Your task to perform on an android device: What's the news about the US? Image 0: 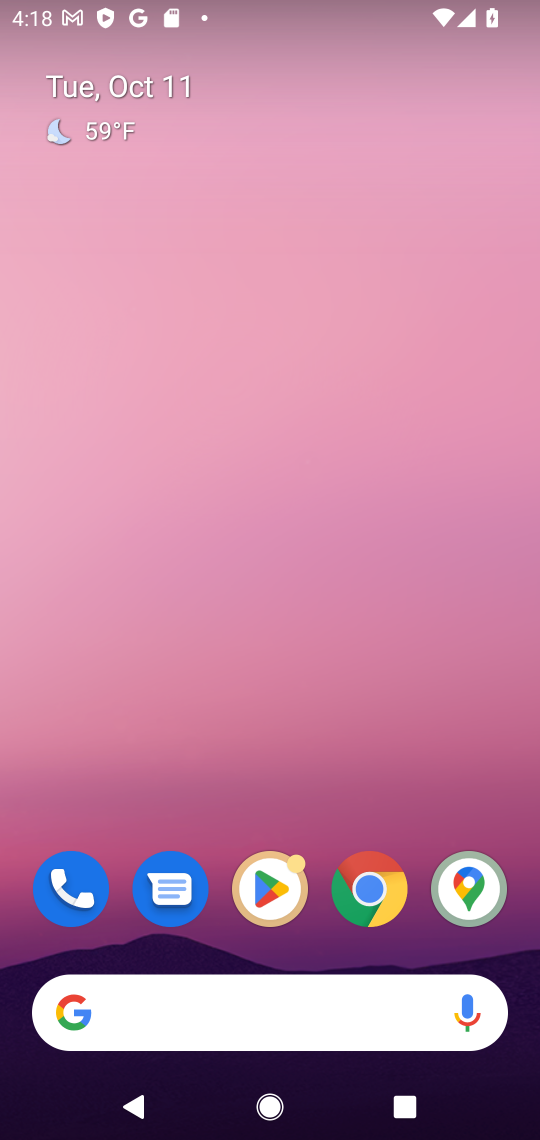
Step 0: drag from (185, 1033) to (223, 419)
Your task to perform on an android device: What's the news about the US? Image 1: 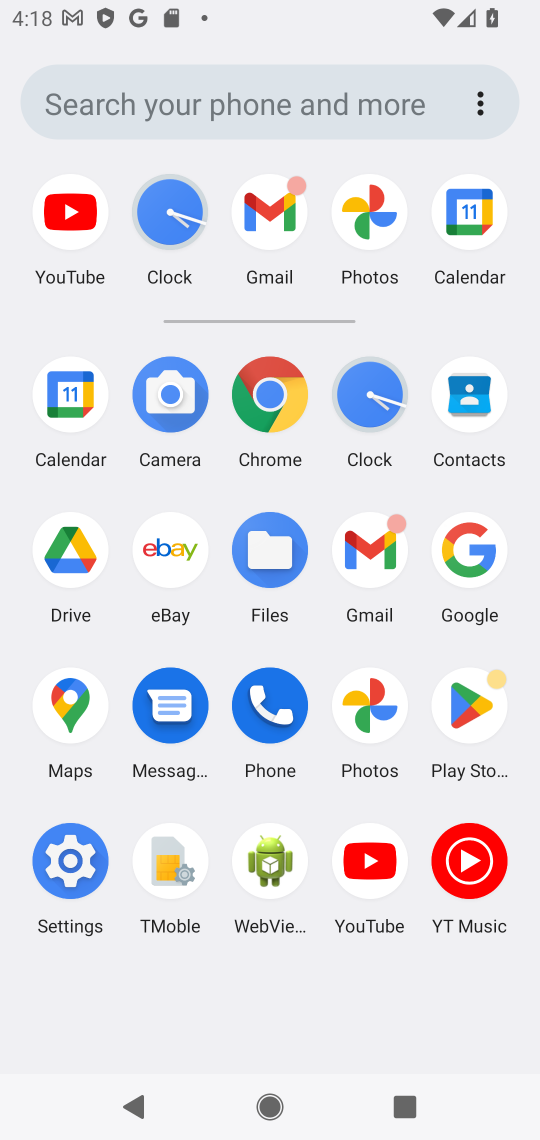
Step 1: click (467, 550)
Your task to perform on an android device: What's the news about the US? Image 2: 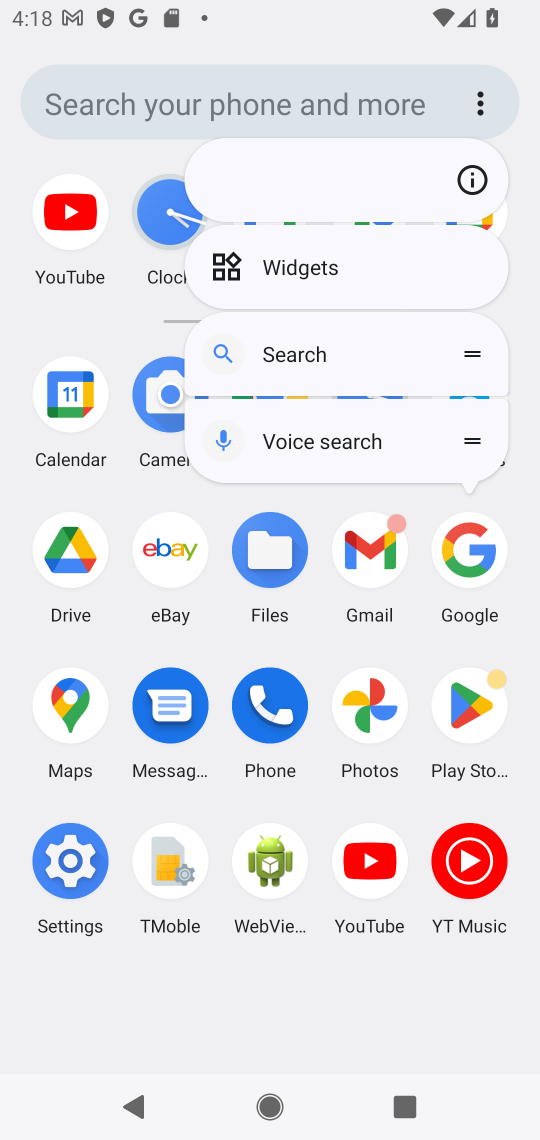
Step 2: click (467, 550)
Your task to perform on an android device: What's the news about the US? Image 3: 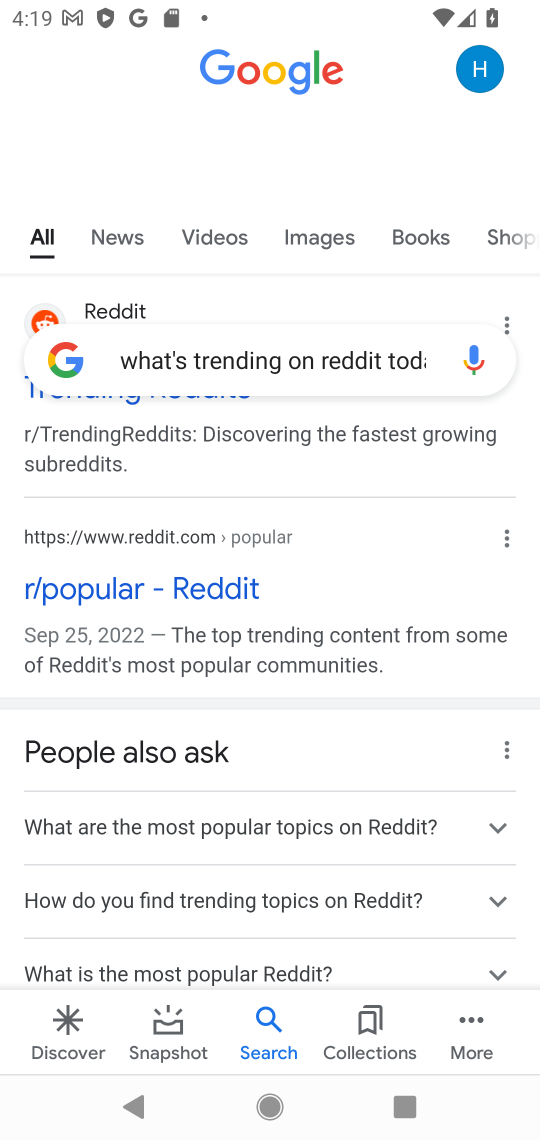
Step 3: click (313, 357)
Your task to perform on an android device: What's the news about the US? Image 4: 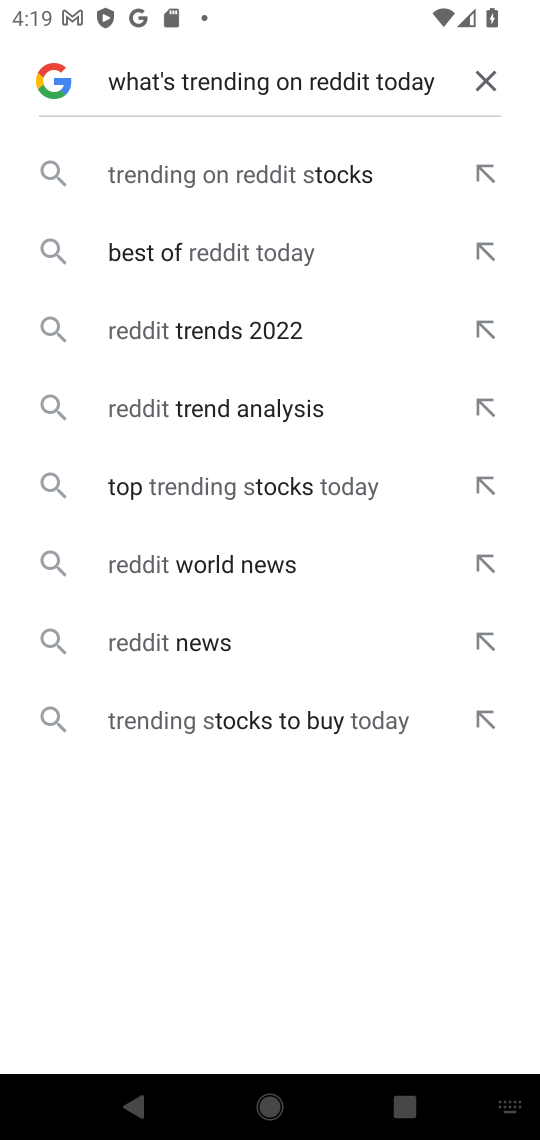
Step 4: click (477, 84)
Your task to perform on an android device: What's the news about the US? Image 5: 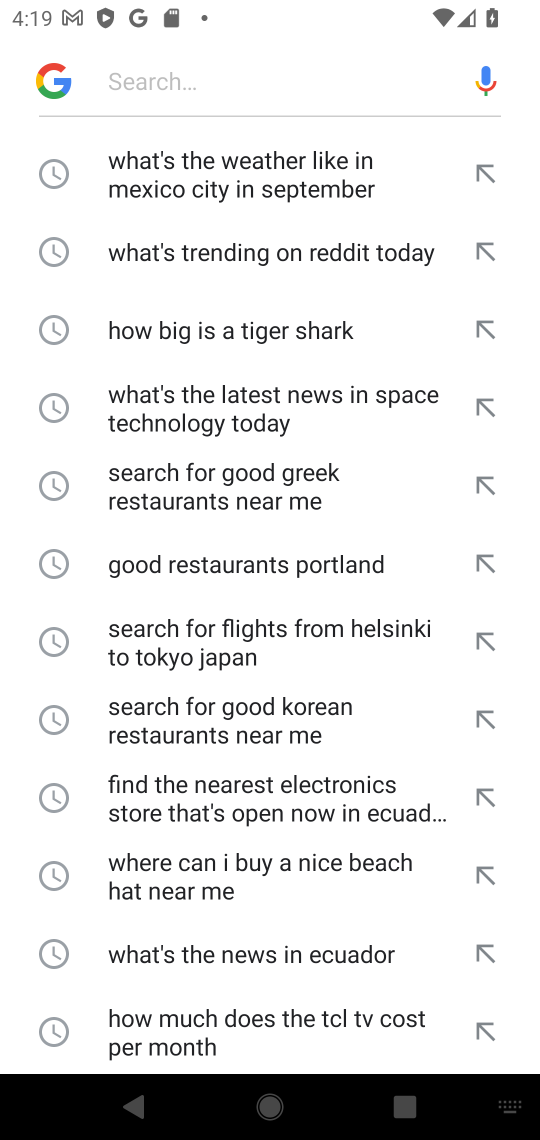
Step 5: click (379, 68)
Your task to perform on an android device: What's the news about the US? Image 6: 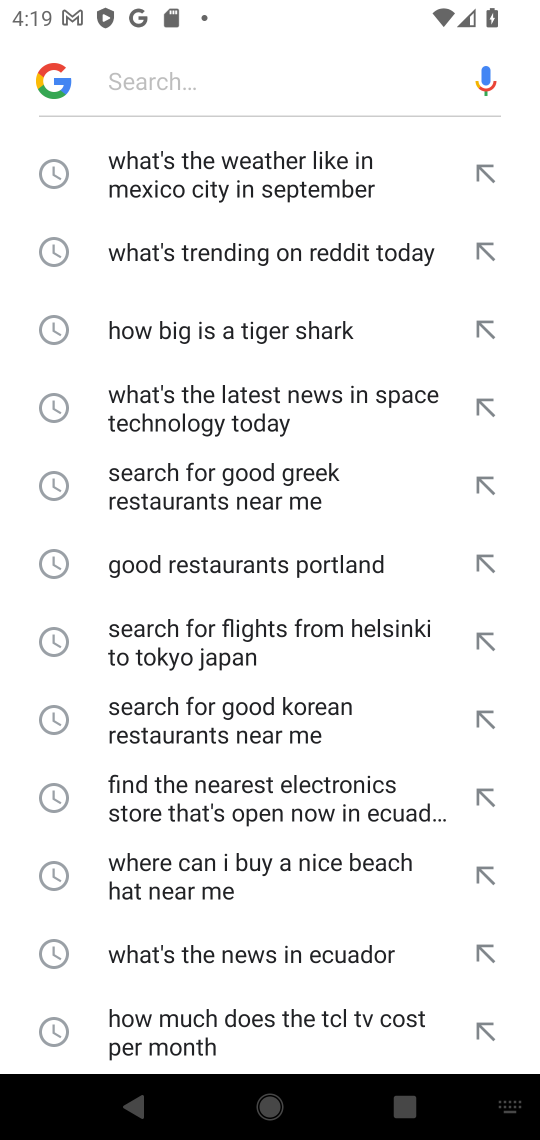
Step 6: type "What's the news about the US? "
Your task to perform on an android device: What's the news about the US? Image 7: 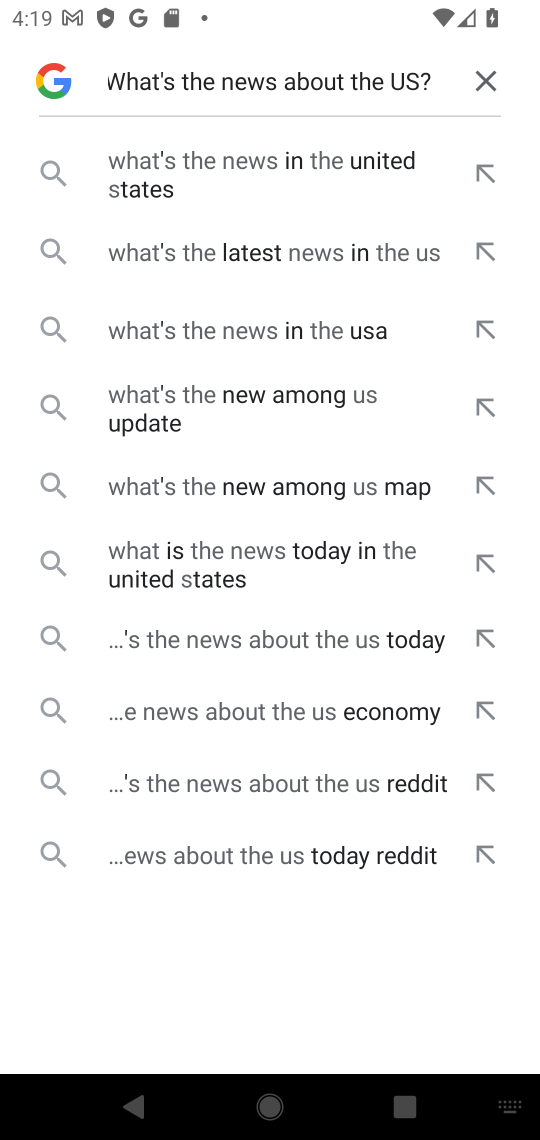
Step 7: click (282, 174)
Your task to perform on an android device: What's the news about the US? Image 8: 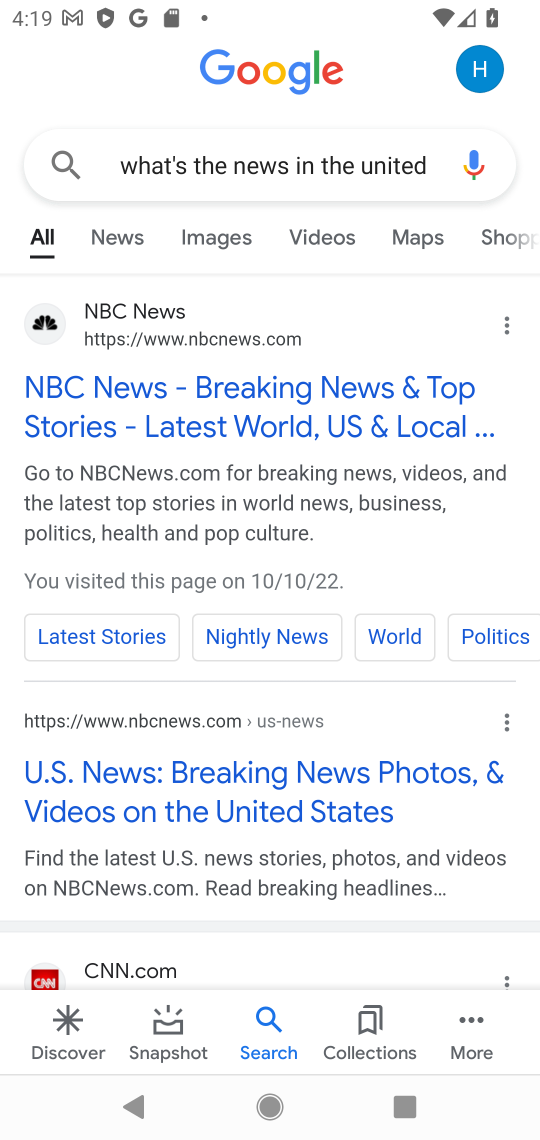
Step 8: click (240, 383)
Your task to perform on an android device: What's the news about the US? Image 9: 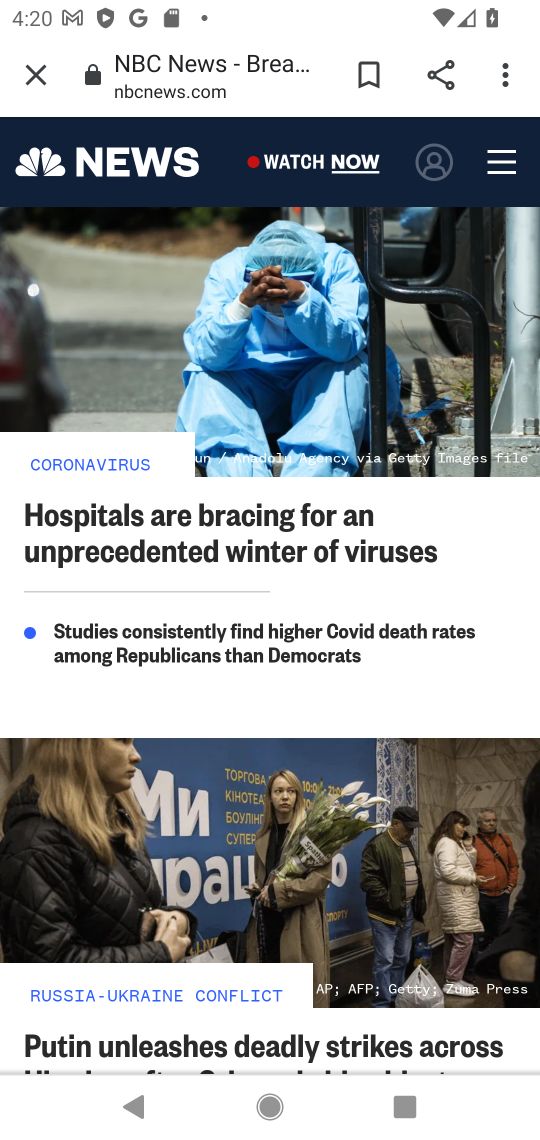
Step 9: task complete